Your task to perform on an android device: Open the calendar and show me this week's events? Image 0: 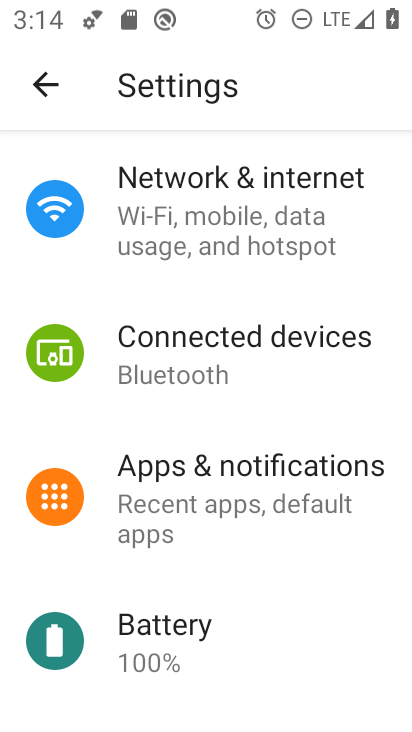
Step 0: press home button
Your task to perform on an android device: Open the calendar and show me this week's events? Image 1: 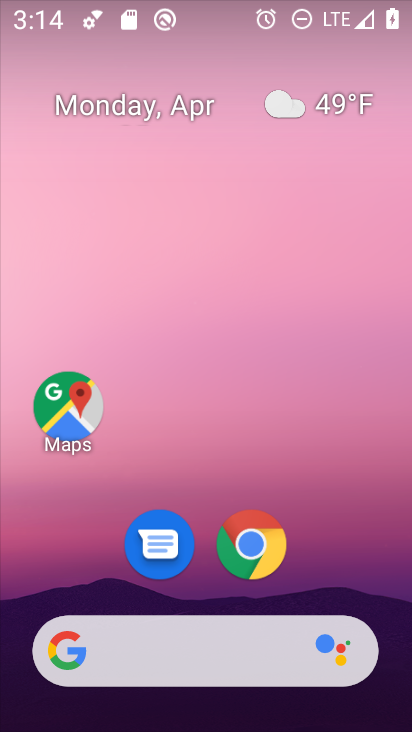
Step 1: drag from (351, 562) to (228, 129)
Your task to perform on an android device: Open the calendar and show me this week's events? Image 2: 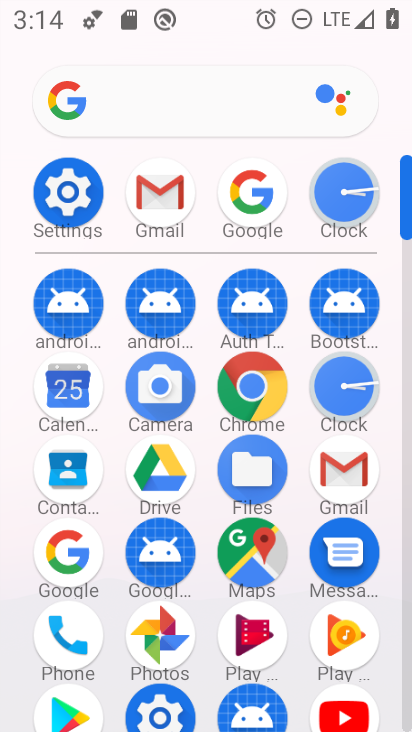
Step 2: click (86, 401)
Your task to perform on an android device: Open the calendar and show me this week's events? Image 3: 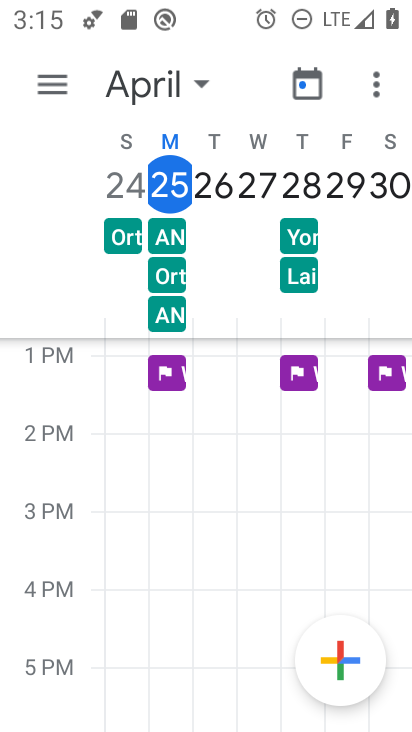
Step 3: task complete